Your task to perform on an android device: Search for seafood restaurants on Google Maps Image 0: 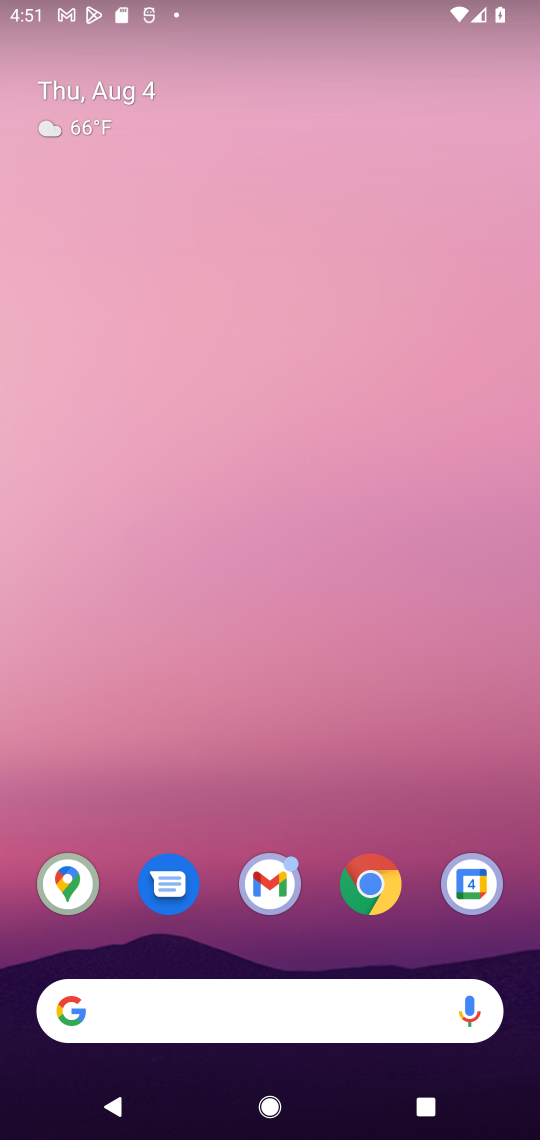
Step 0: click (60, 877)
Your task to perform on an android device: Search for seafood restaurants on Google Maps Image 1: 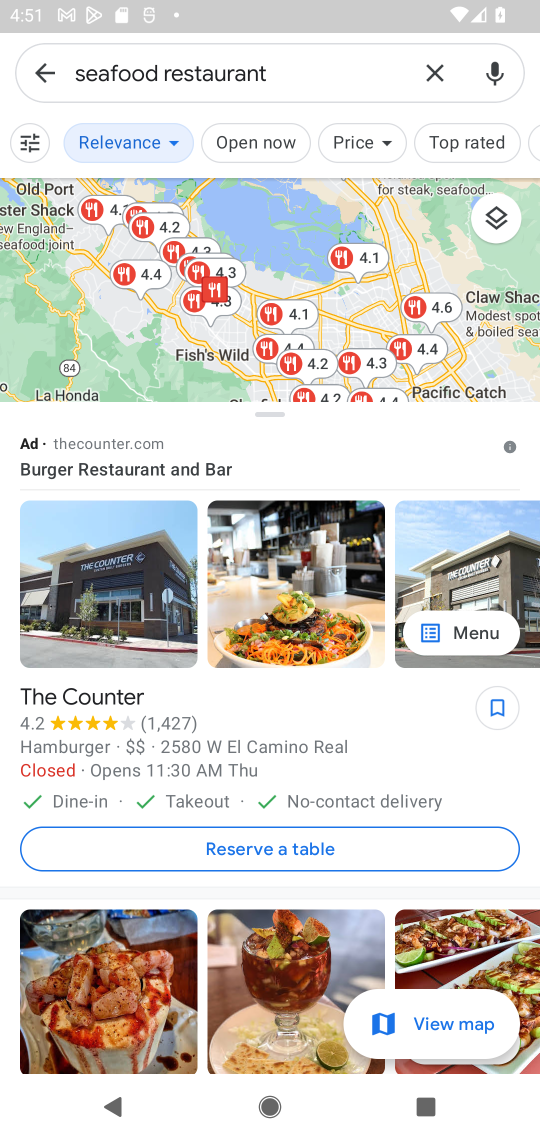
Step 1: click (442, 74)
Your task to perform on an android device: Search for seafood restaurants on Google Maps Image 2: 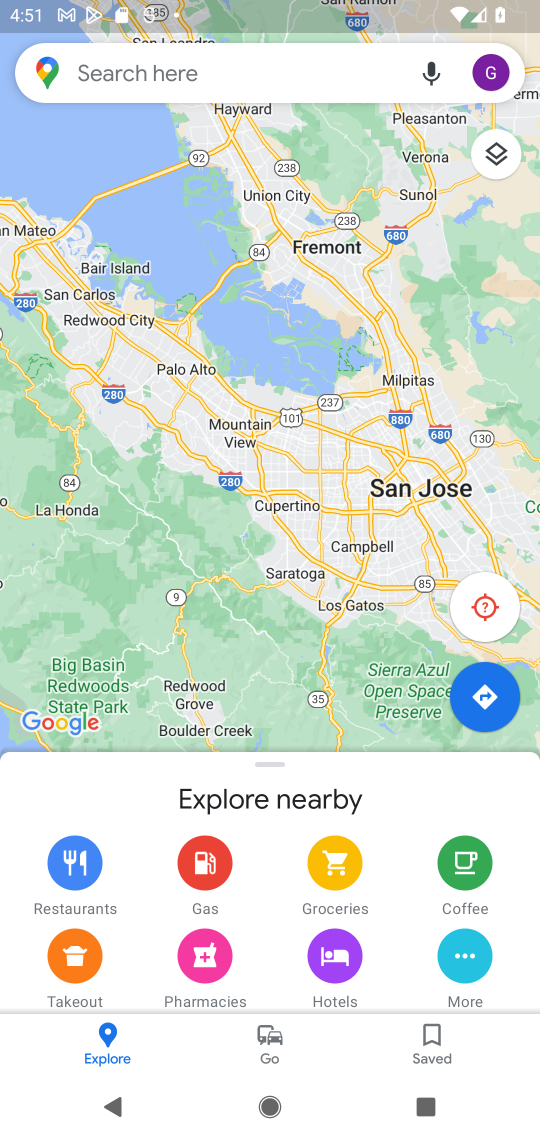
Step 2: click (212, 70)
Your task to perform on an android device: Search for seafood restaurants on Google Maps Image 3: 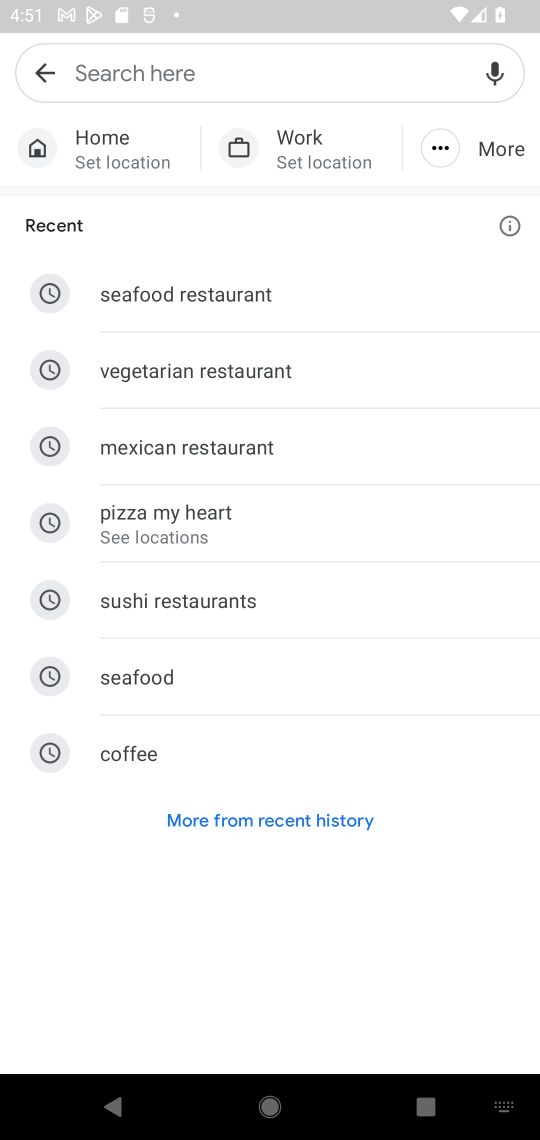
Step 3: click (266, 308)
Your task to perform on an android device: Search for seafood restaurants on Google Maps Image 4: 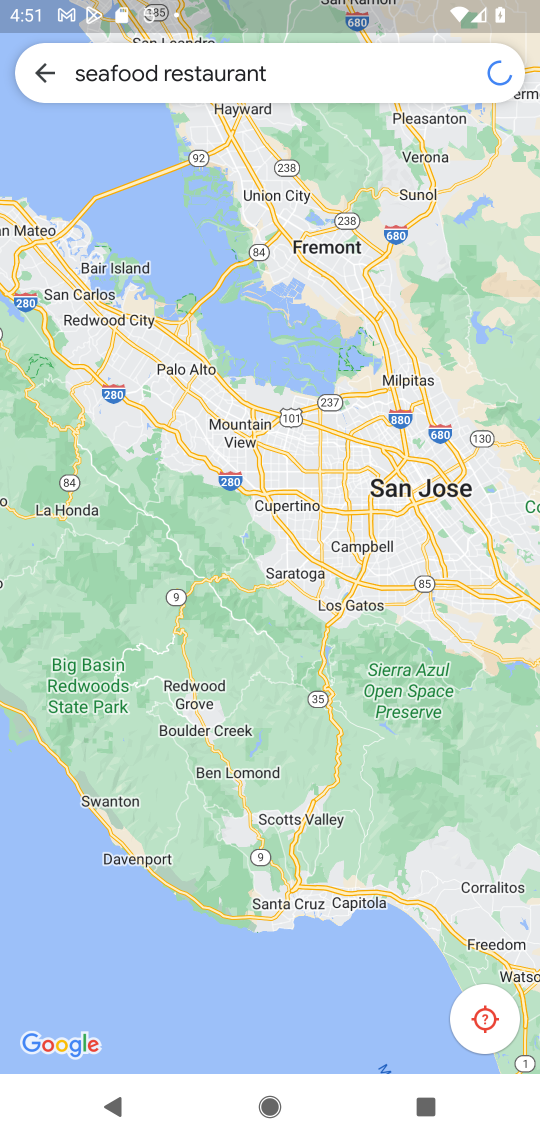
Step 4: task complete